Your task to perform on an android device: delete a single message in the gmail app Image 0: 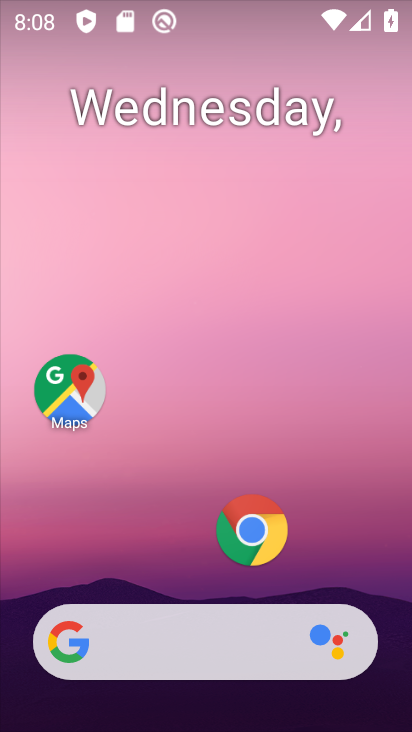
Step 0: drag from (139, 564) to (218, 0)
Your task to perform on an android device: delete a single message in the gmail app Image 1: 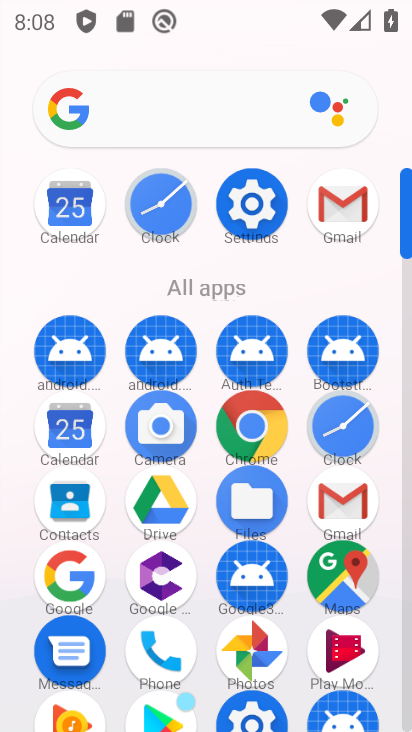
Step 1: click (329, 202)
Your task to perform on an android device: delete a single message in the gmail app Image 2: 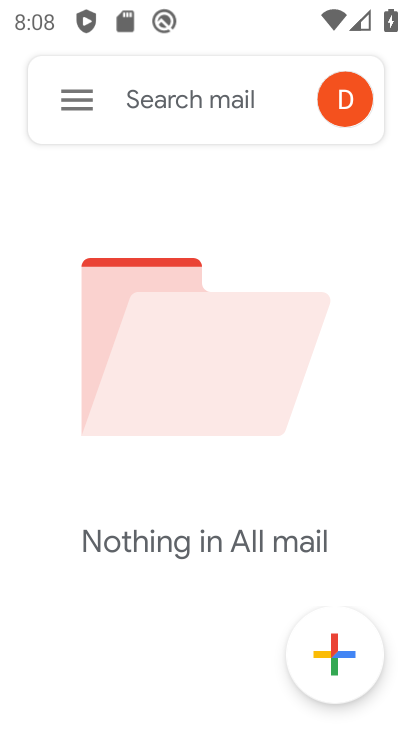
Step 2: task complete